Your task to perform on an android device: turn off airplane mode Image 0: 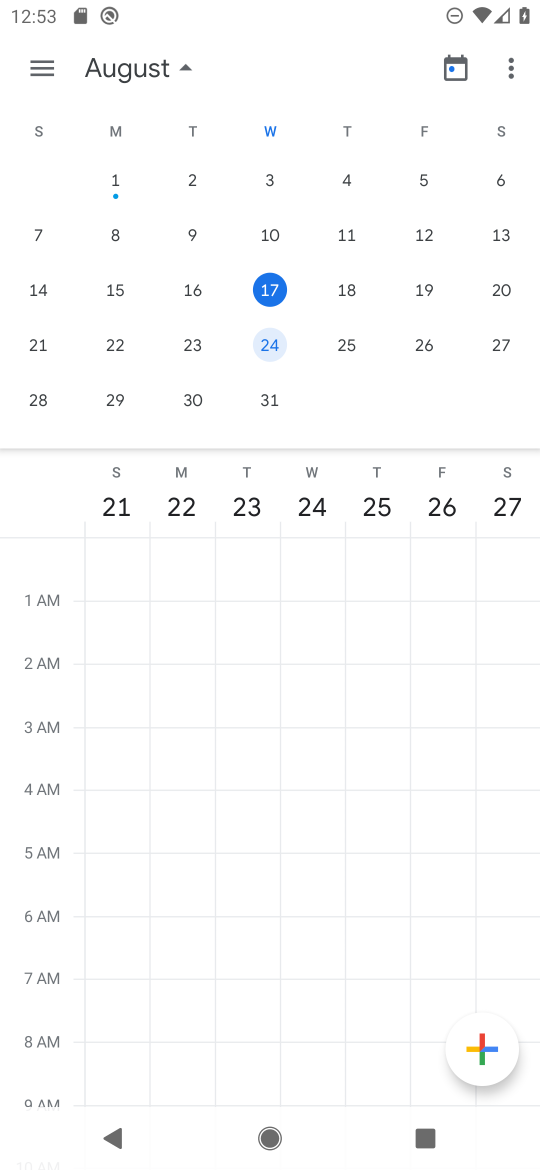
Step 0: press home button
Your task to perform on an android device: turn off airplane mode Image 1: 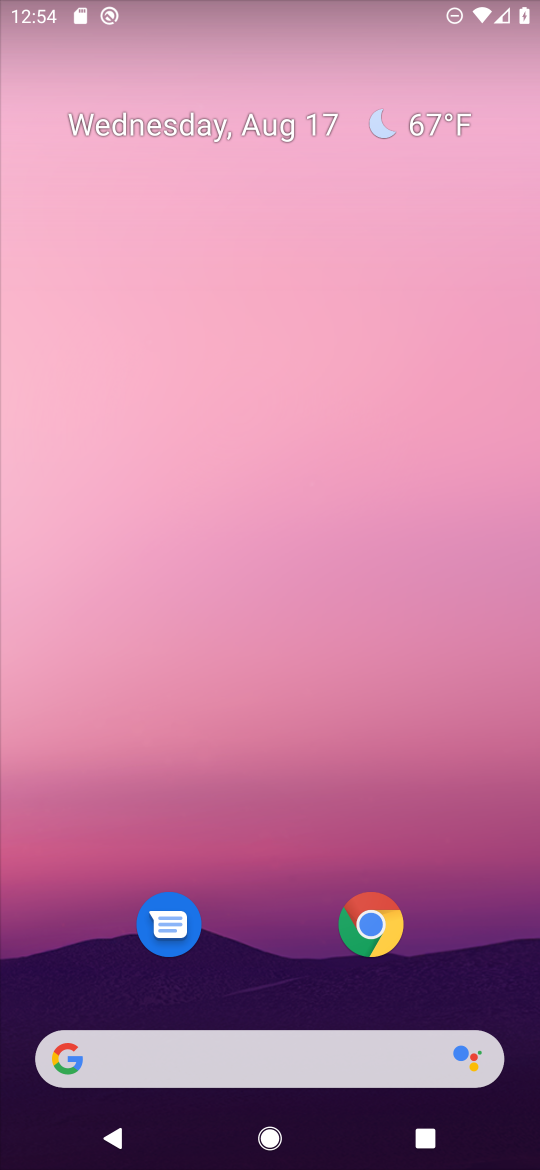
Step 1: task complete